Your task to perform on an android device: Go to Android settings Image 0: 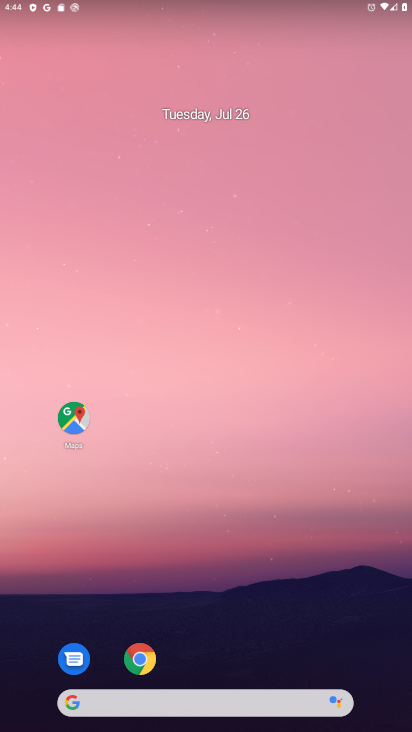
Step 0: drag from (203, 663) to (87, 17)
Your task to perform on an android device: Go to Android settings Image 1: 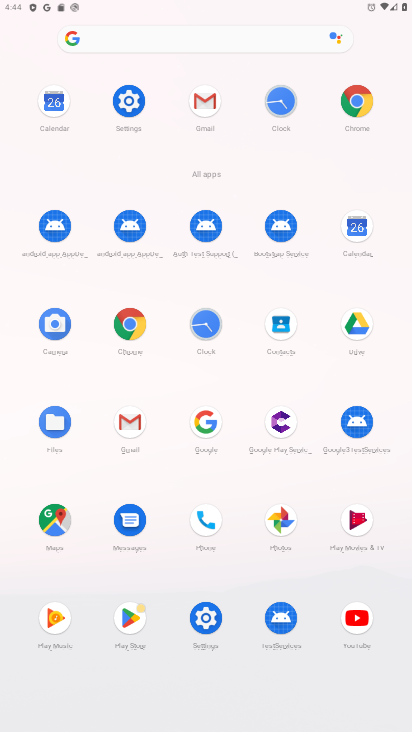
Step 1: click (124, 98)
Your task to perform on an android device: Go to Android settings Image 2: 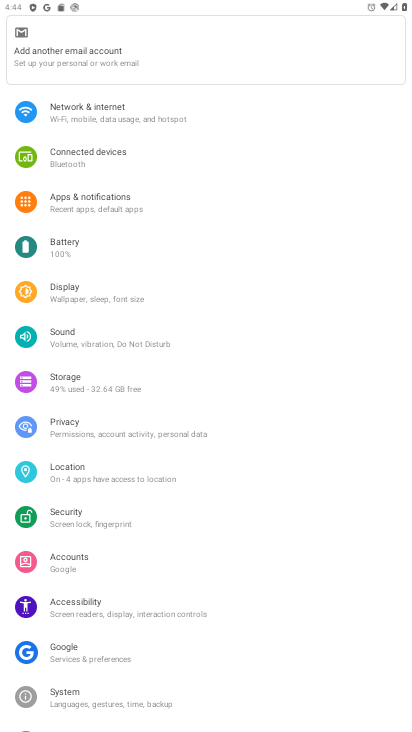
Step 2: task complete